Your task to perform on an android device: open the mobile data screen to see how much data has been used Image 0: 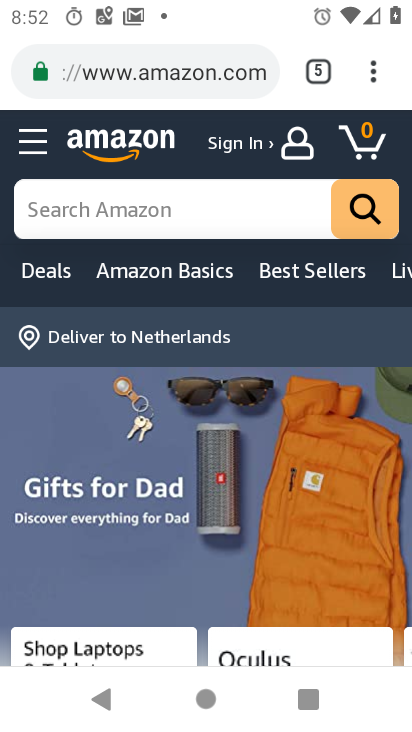
Step 0: press home button
Your task to perform on an android device: open the mobile data screen to see how much data has been used Image 1: 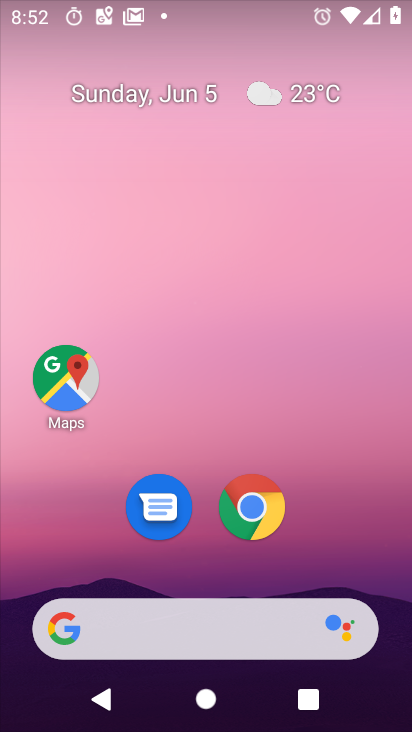
Step 1: drag from (227, 663) to (247, 50)
Your task to perform on an android device: open the mobile data screen to see how much data has been used Image 2: 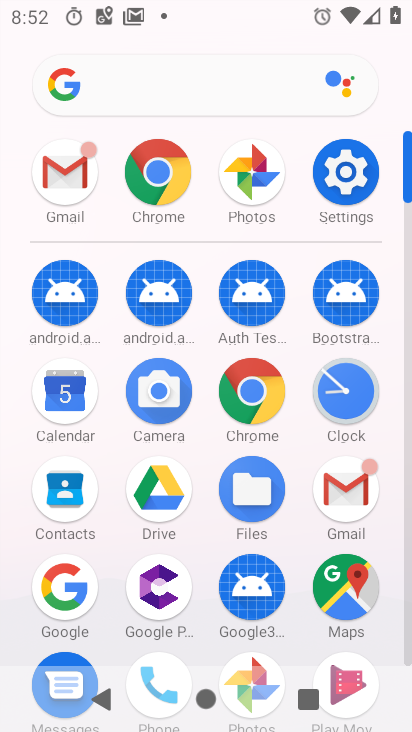
Step 2: click (341, 167)
Your task to perform on an android device: open the mobile data screen to see how much data has been used Image 3: 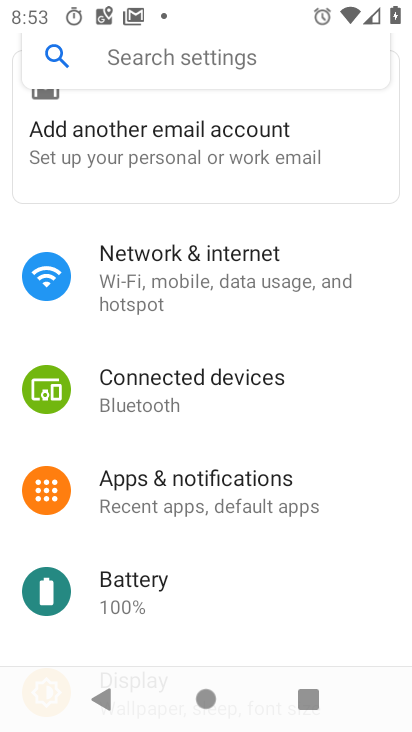
Step 3: click (135, 53)
Your task to perform on an android device: open the mobile data screen to see how much data has been used Image 4: 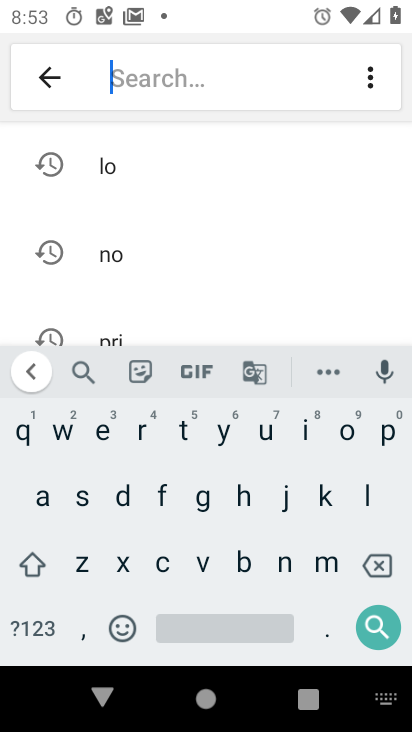
Step 4: press back button
Your task to perform on an android device: open the mobile data screen to see how much data has been used Image 5: 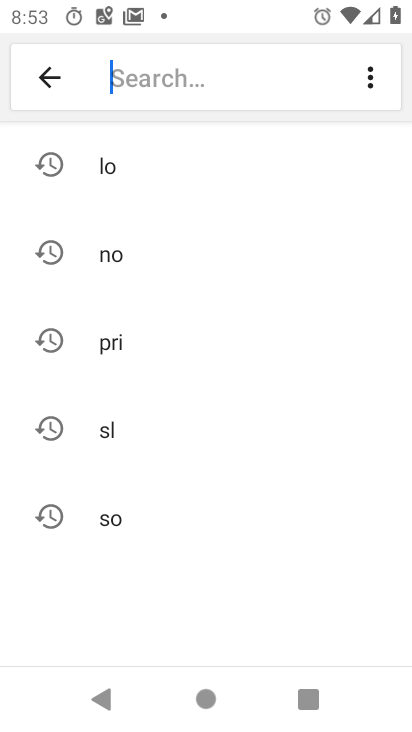
Step 5: click (114, 65)
Your task to perform on an android device: open the mobile data screen to see how much data has been used Image 6: 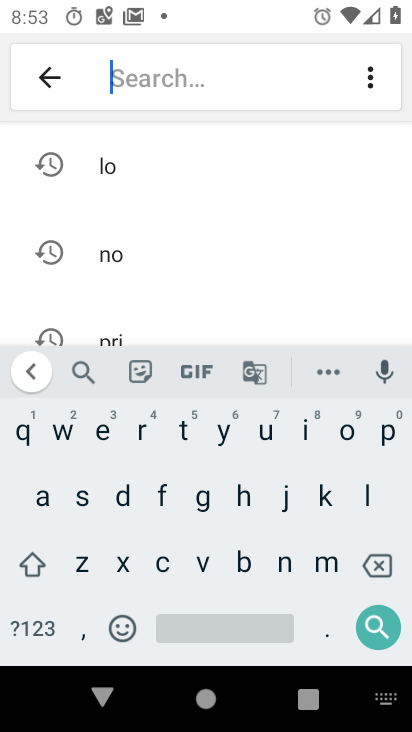
Step 6: click (113, 499)
Your task to perform on an android device: open the mobile data screen to see how much data has been used Image 7: 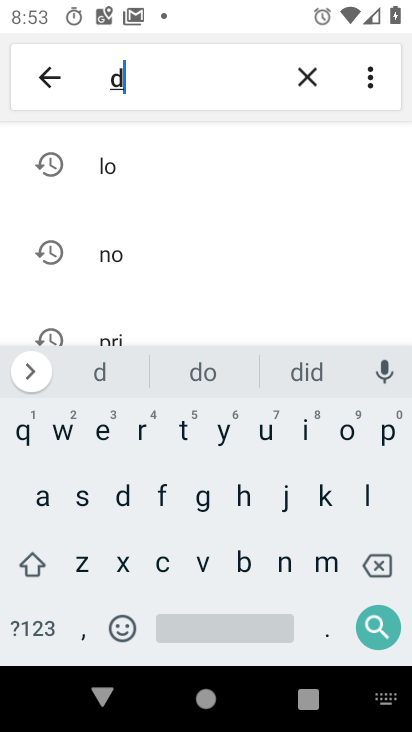
Step 7: click (45, 495)
Your task to perform on an android device: open the mobile data screen to see how much data has been used Image 8: 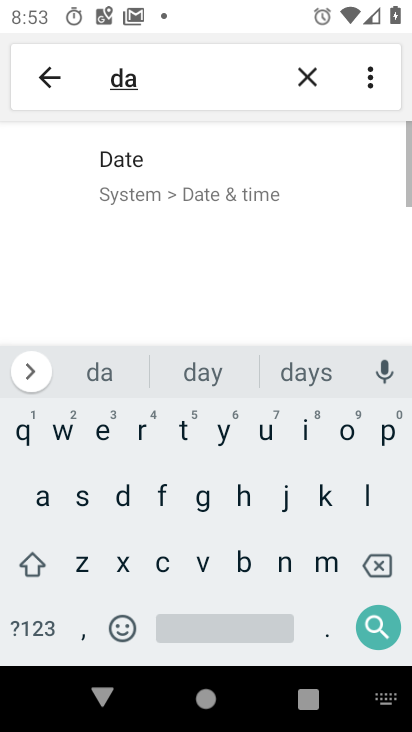
Step 8: click (186, 429)
Your task to perform on an android device: open the mobile data screen to see how much data has been used Image 9: 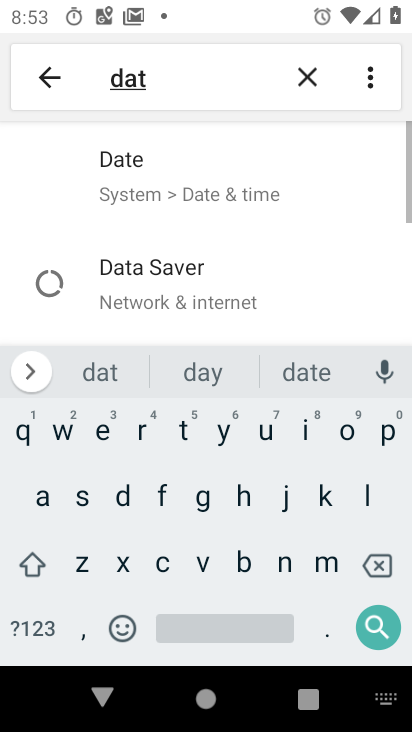
Step 9: click (35, 502)
Your task to perform on an android device: open the mobile data screen to see how much data has been used Image 10: 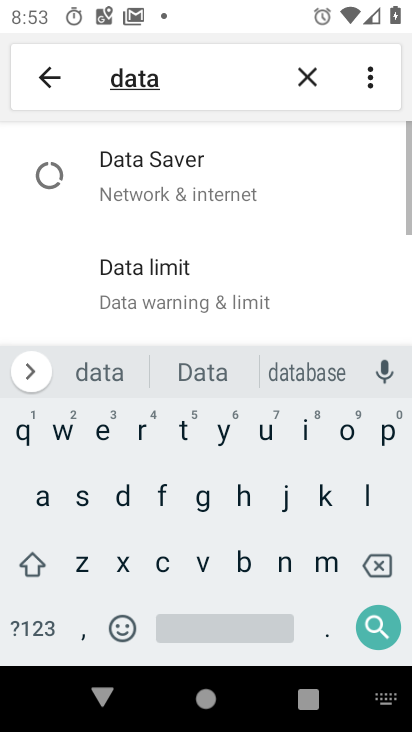
Step 10: click (218, 622)
Your task to perform on an android device: open the mobile data screen to see how much data has been used Image 11: 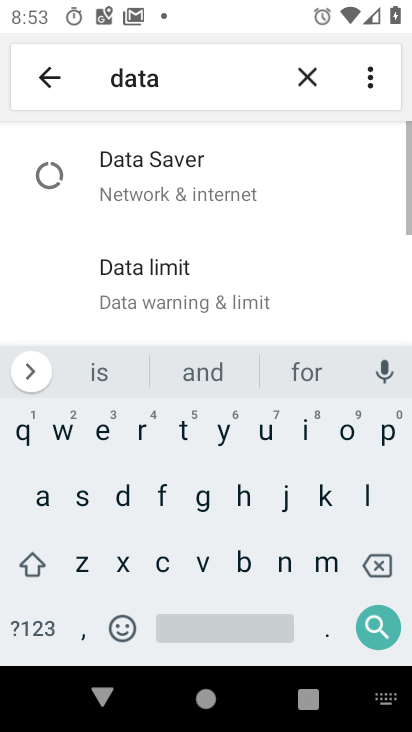
Step 11: click (273, 437)
Your task to perform on an android device: open the mobile data screen to see how much data has been used Image 12: 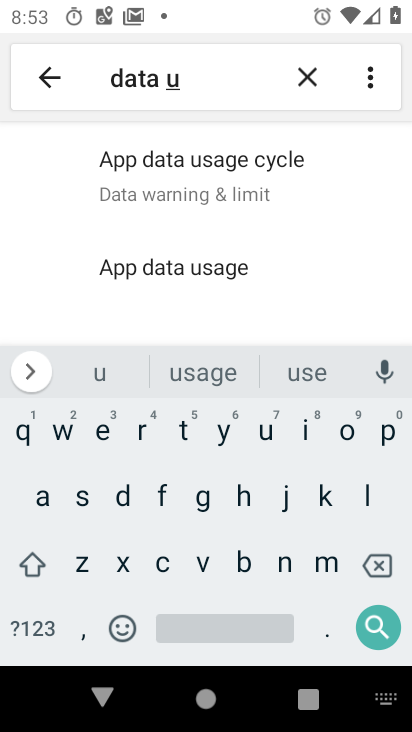
Step 12: click (171, 274)
Your task to perform on an android device: open the mobile data screen to see how much data has been used Image 13: 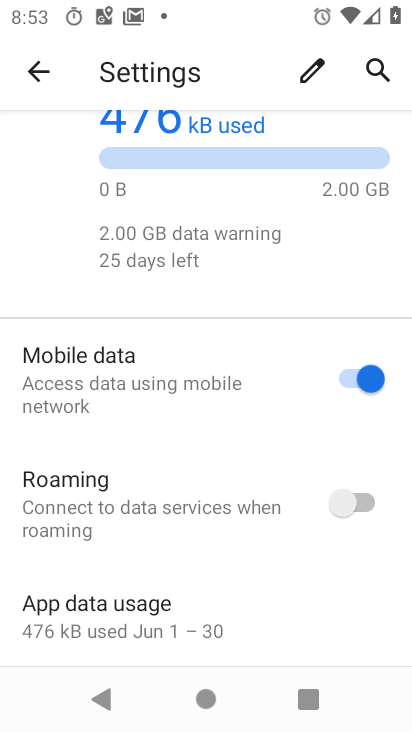
Step 13: task complete